Your task to perform on an android device: set an alarm Image 0: 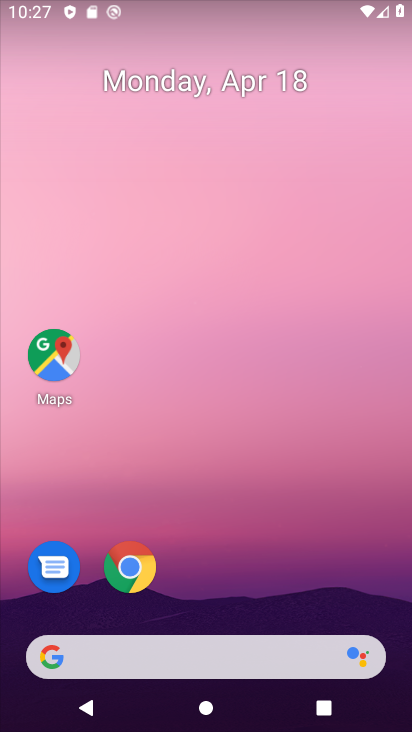
Step 0: drag from (255, 570) to (253, 85)
Your task to perform on an android device: set an alarm Image 1: 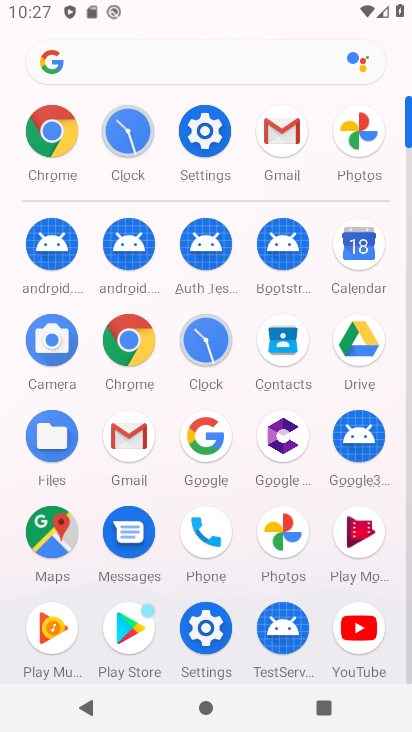
Step 1: click (201, 338)
Your task to perform on an android device: set an alarm Image 2: 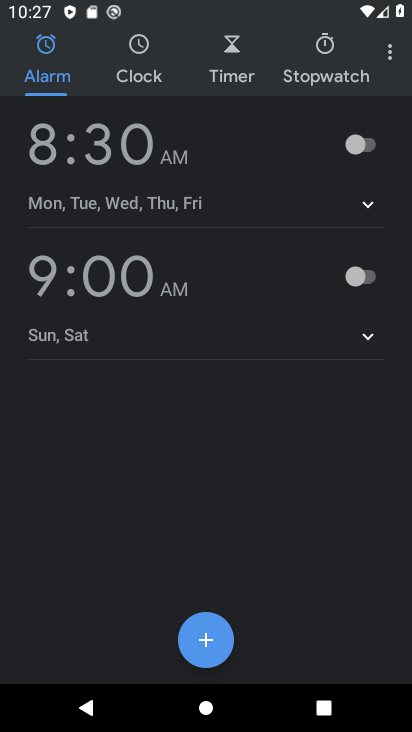
Step 2: click (205, 658)
Your task to perform on an android device: set an alarm Image 3: 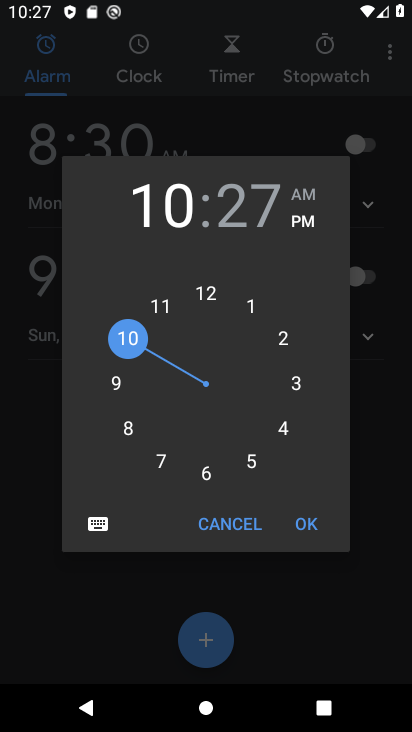
Step 3: click (305, 523)
Your task to perform on an android device: set an alarm Image 4: 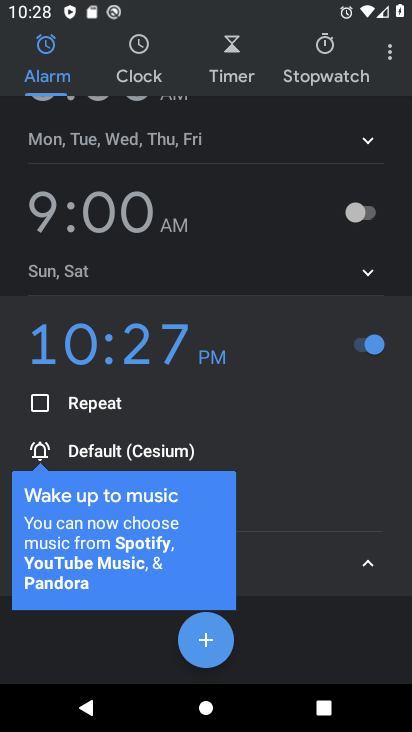
Step 4: click (364, 566)
Your task to perform on an android device: set an alarm Image 5: 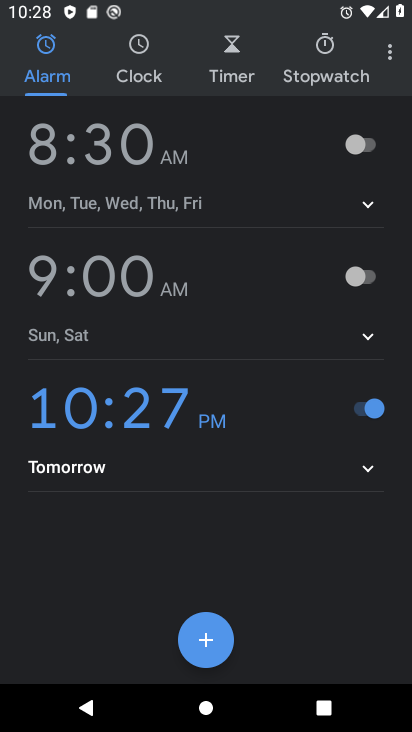
Step 5: task complete